Your task to perform on an android device: delete browsing data in the chrome app Image 0: 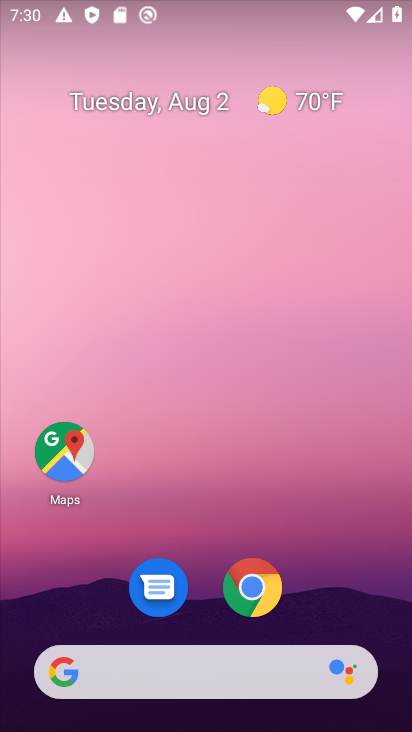
Step 0: click (266, 585)
Your task to perform on an android device: delete browsing data in the chrome app Image 1: 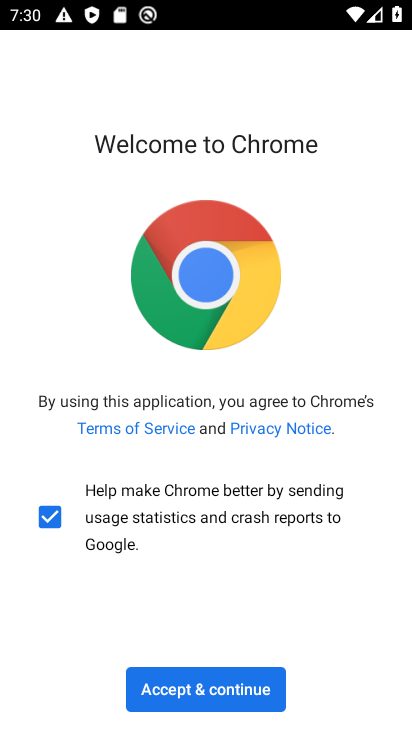
Step 1: click (225, 695)
Your task to perform on an android device: delete browsing data in the chrome app Image 2: 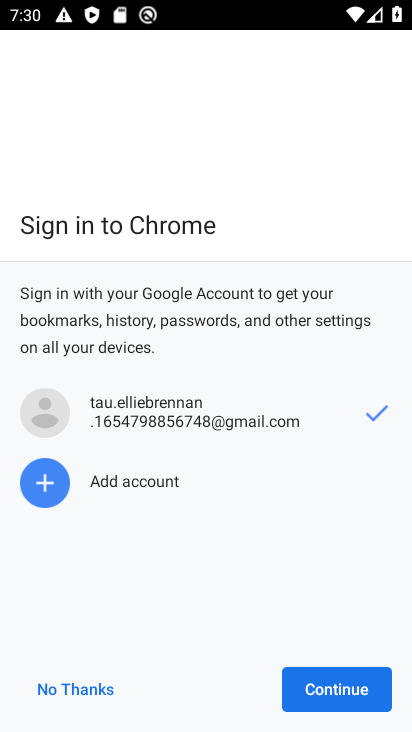
Step 2: click (325, 679)
Your task to perform on an android device: delete browsing data in the chrome app Image 3: 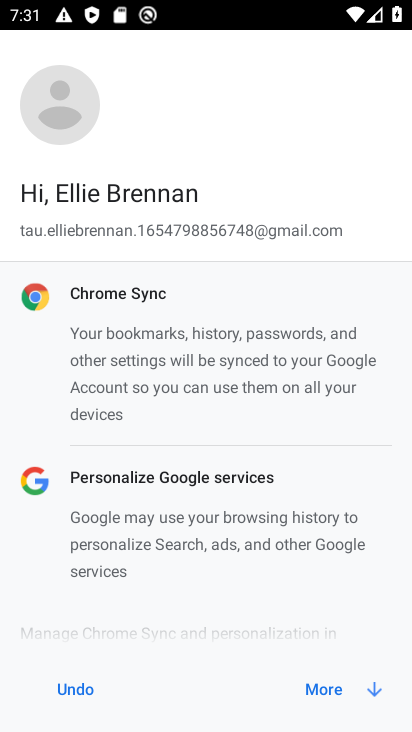
Step 3: click (370, 695)
Your task to perform on an android device: delete browsing data in the chrome app Image 4: 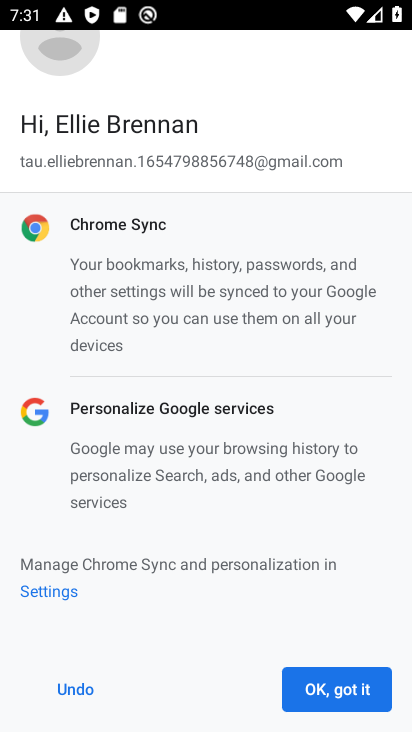
Step 4: click (340, 683)
Your task to perform on an android device: delete browsing data in the chrome app Image 5: 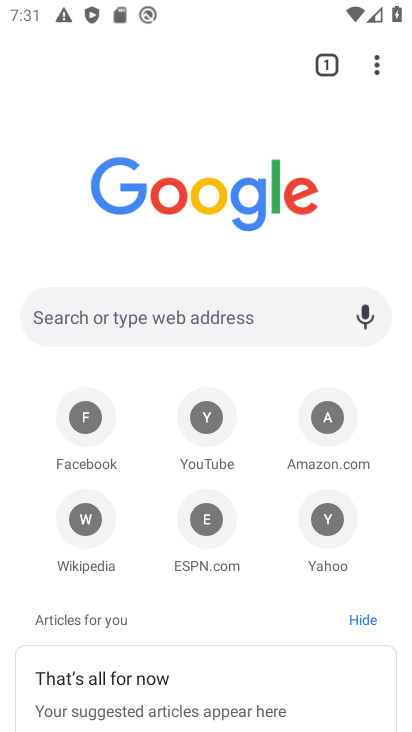
Step 5: click (373, 76)
Your task to perform on an android device: delete browsing data in the chrome app Image 6: 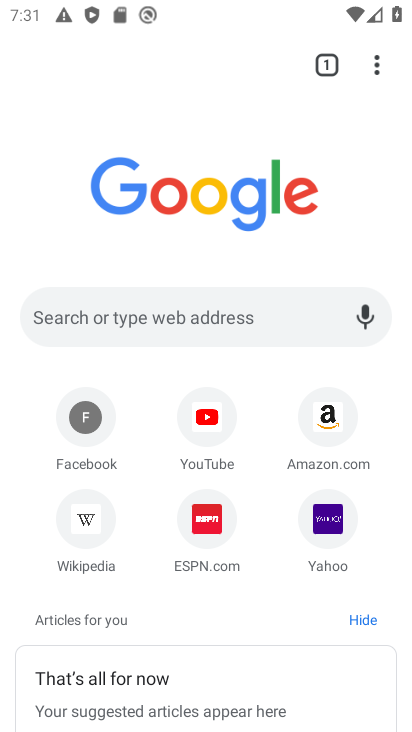
Step 6: click (381, 68)
Your task to perform on an android device: delete browsing data in the chrome app Image 7: 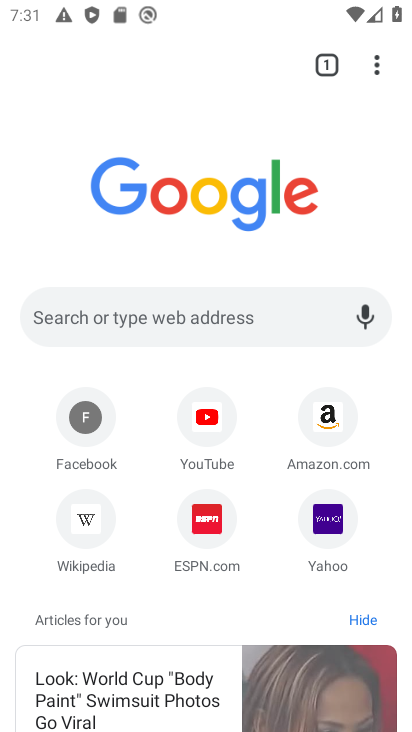
Step 7: click (378, 76)
Your task to perform on an android device: delete browsing data in the chrome app Image 8: 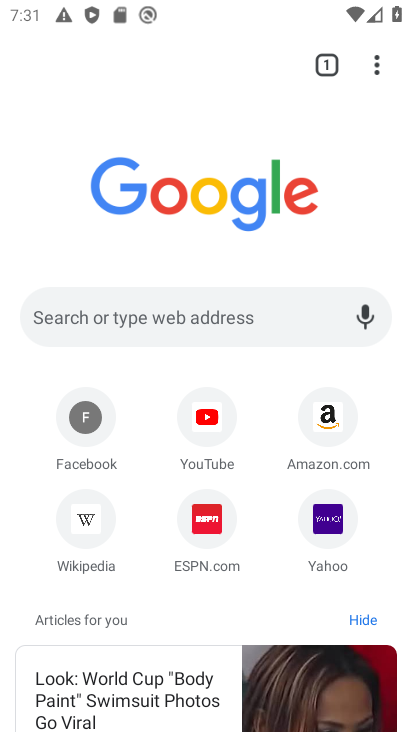
Step 8: click (367, 73)
Your task to perform on an android device: delete browsing data in the chrome app Image 9: 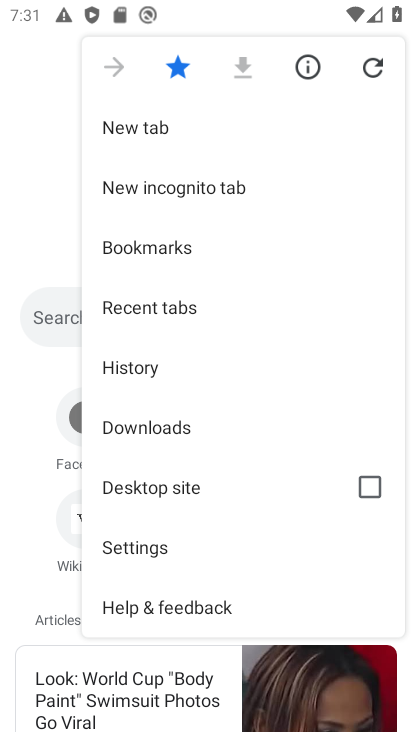
Step 9: click (203, 550)
Your task to perform on an android device: delete browsing data in the chrome app Image 10: 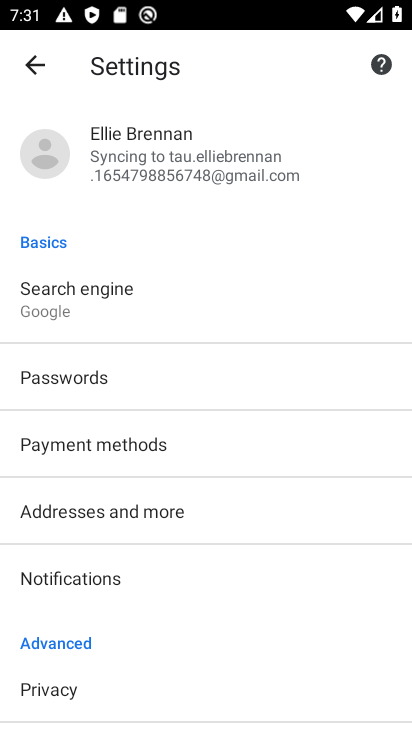
Step 10: click (55, 680)
Your task to perform on an android device: delete browsing data in the chrome app Image 11: 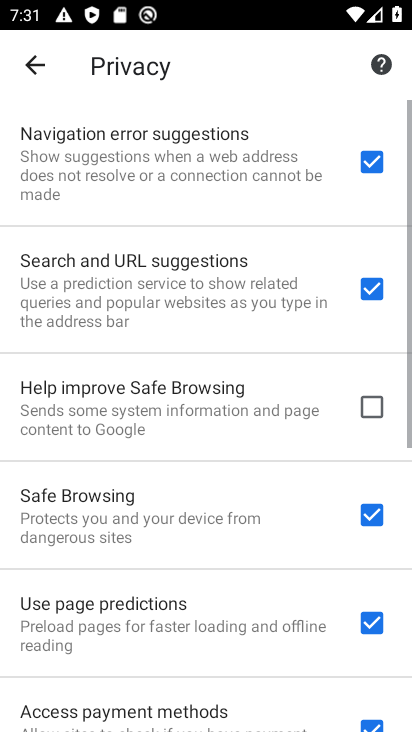
Step 11: drag from (165, 588) to (170, 196)
Your task to perform on an android device: delete browsing data in the chrome app Image 12: 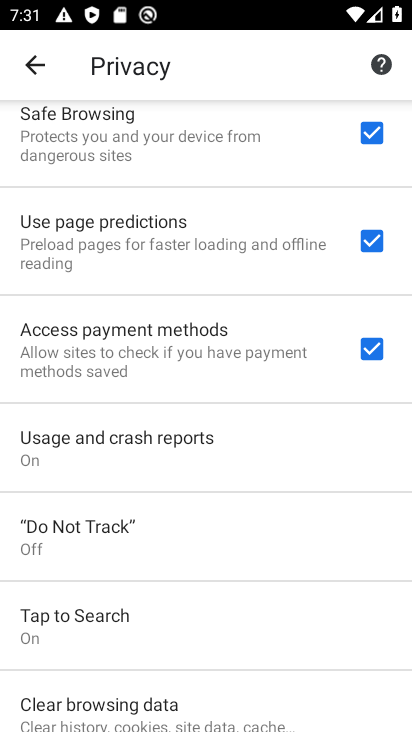
Step 12: click (123, 703)
Your task to perform on an android device: delete browsing data in the chrome app Image 13: 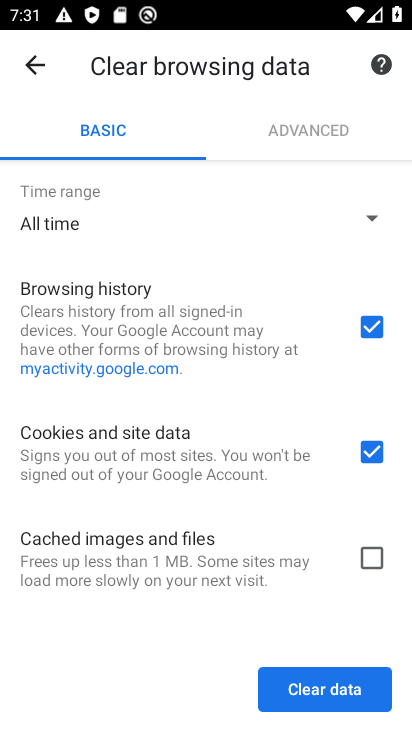
Step 13: click (337, 680)
Your task to perform on an android device: delete browsing data in the chrome app Image 14: 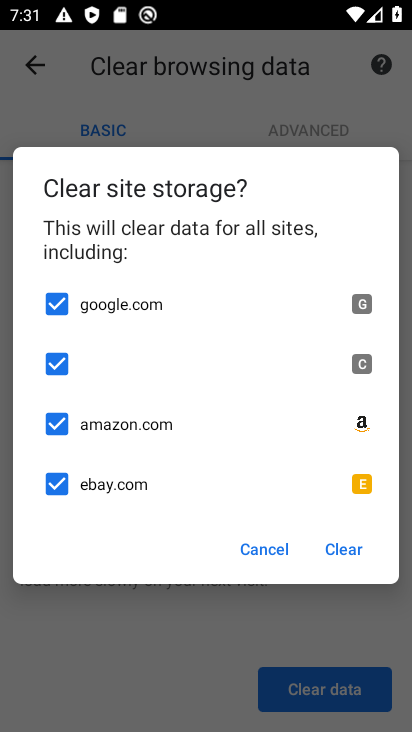
Step 14: click (352, 539)
Your task to perform on an android device: delete browsing data in the chrome app Image 15: 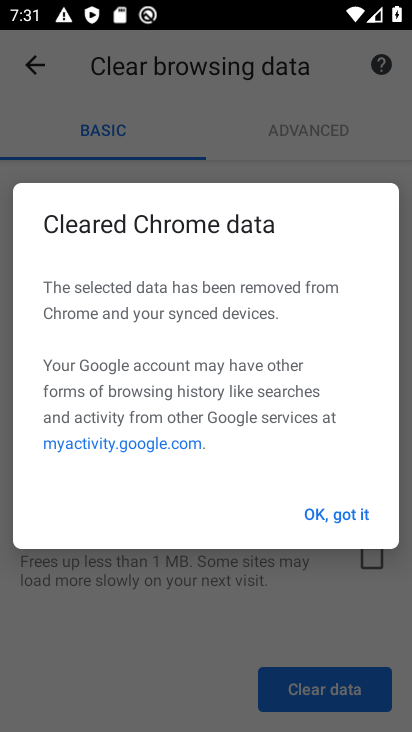
Step 15: task complete